Your task to perform on an android device: toggle wifi Image 0: 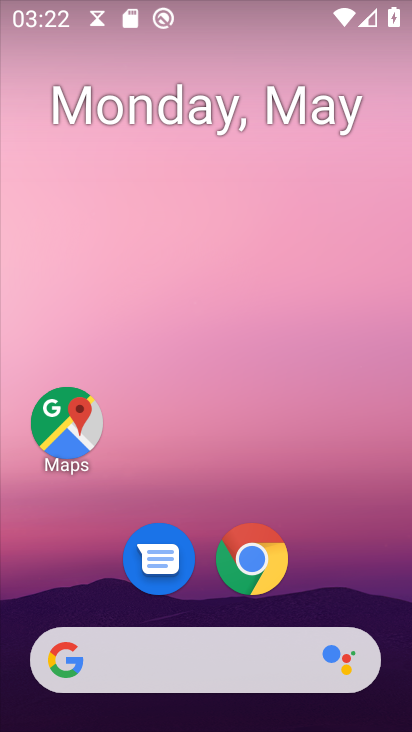
Step 0: drag from (333, 464) to (345, 221)
Your task to perform on an android device: toggle wifi Image 1: 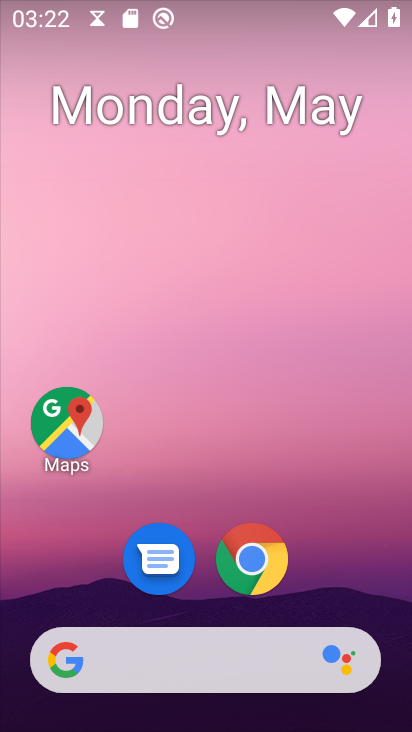
Step 1: drag from (290, 494) to (276, 165)
Your task to perform on an android device: toggle wifi Image 2: 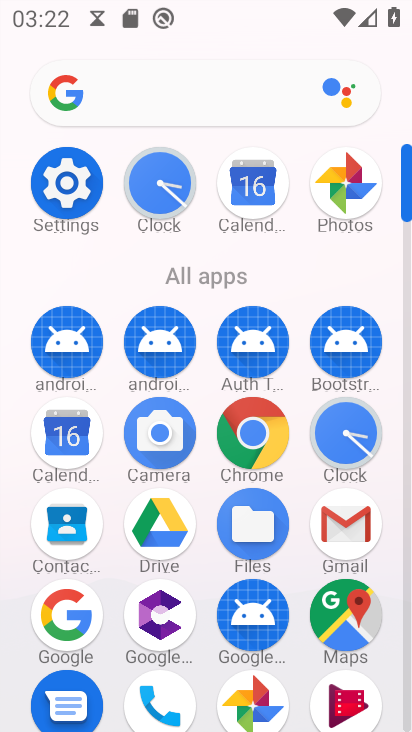
Step 2: click (47, 178)
Your task to perform on an android device: toggle wifi Image 3: 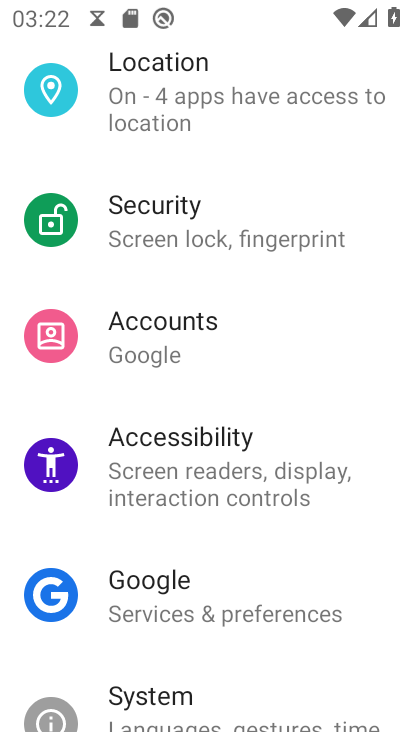
Step 3: drag from (223, 156) to (207, 304)
Your task to perform on an android device: toggle wifi Image 4: 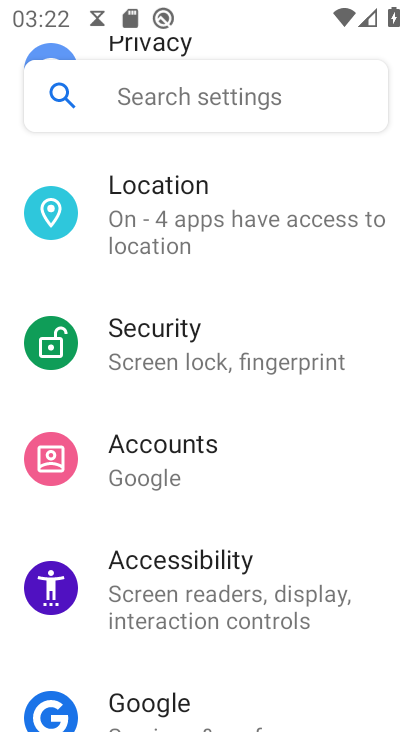
Step 4: drag from (217, 183) to (208, 500)
Your task to perform on an android device: toggle wifi Image 5: 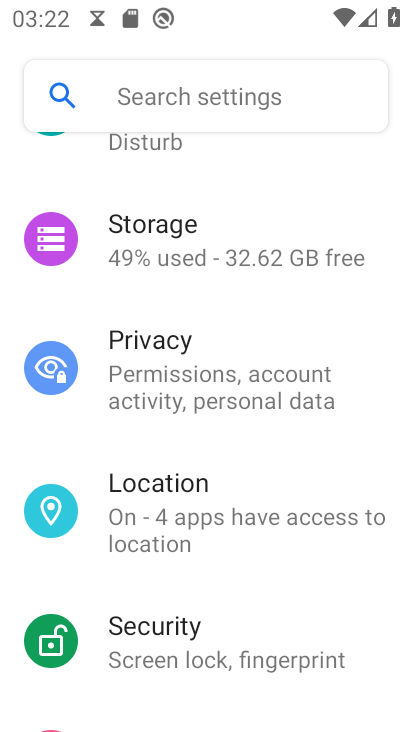
Step 5: drag from (194, 198) to (197, 660)
Your task to perform on an android device: toggle wifi Image 6: 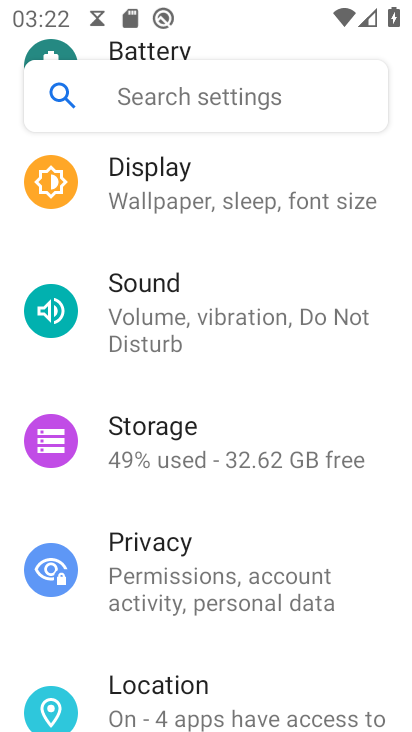
Step 6: drag from (232, 193) to (202, 619)
Your task to perform on an android device: toggle wifi Image 7: 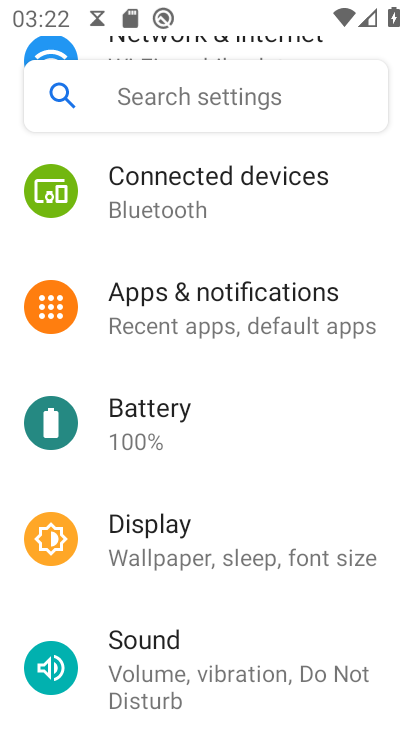
Step 7: drag from (255, 204) to (216, 607)
Your task to perform on an android device: toggle wifi Image 8: 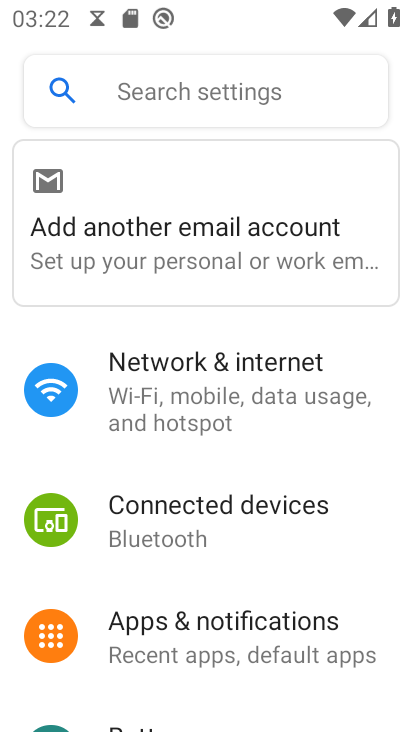
Step 8: click (218, 378)
Your task to perform on an android device: toggle wifi Image 9: 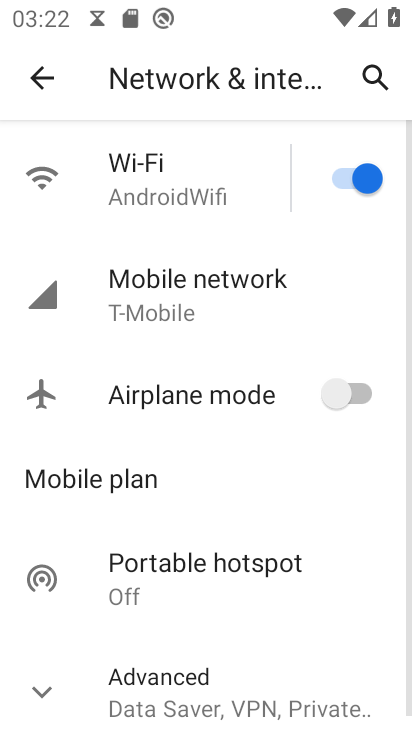
Step 9: click (336, 185)
Your task to perform on an android device: toggle wifi Image 10: 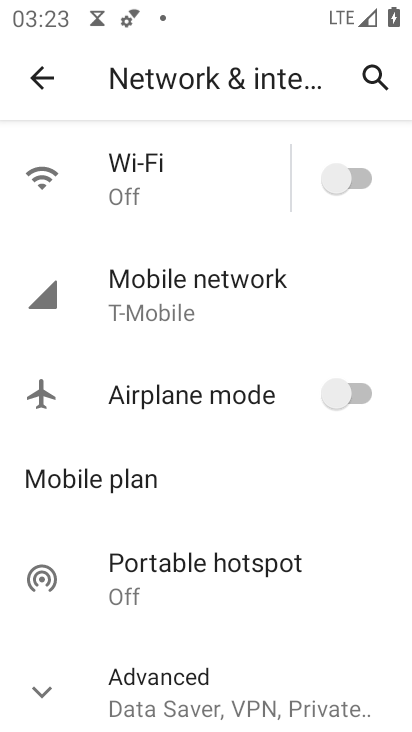
Step 10: task complete